Your task to perform on an android device: What's on the menu at Five Guys? Image 0: 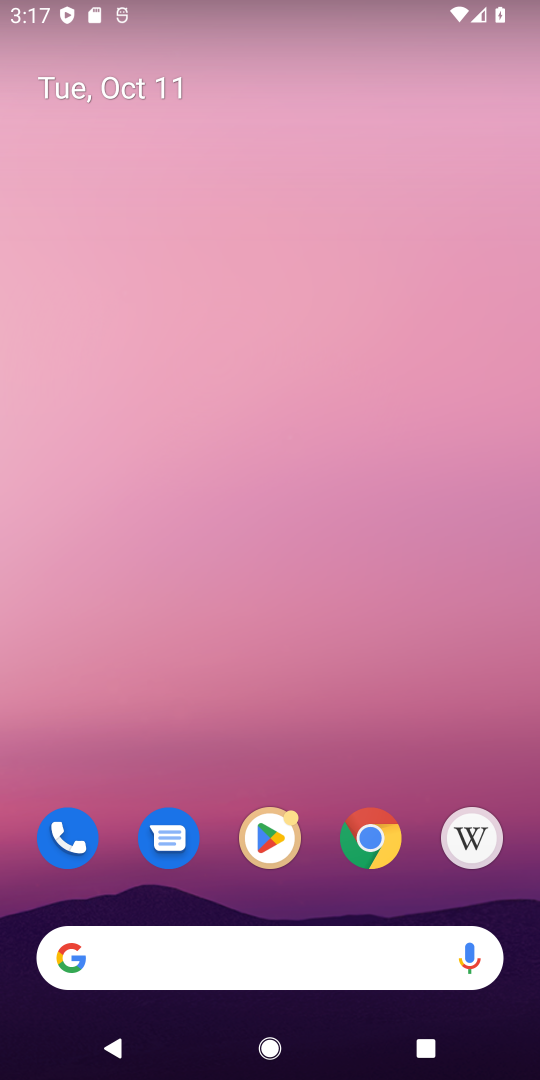
Step 0: click (205, 935)
Your task to perform on an android device: What's on the menu at Five Guys? Image 1: 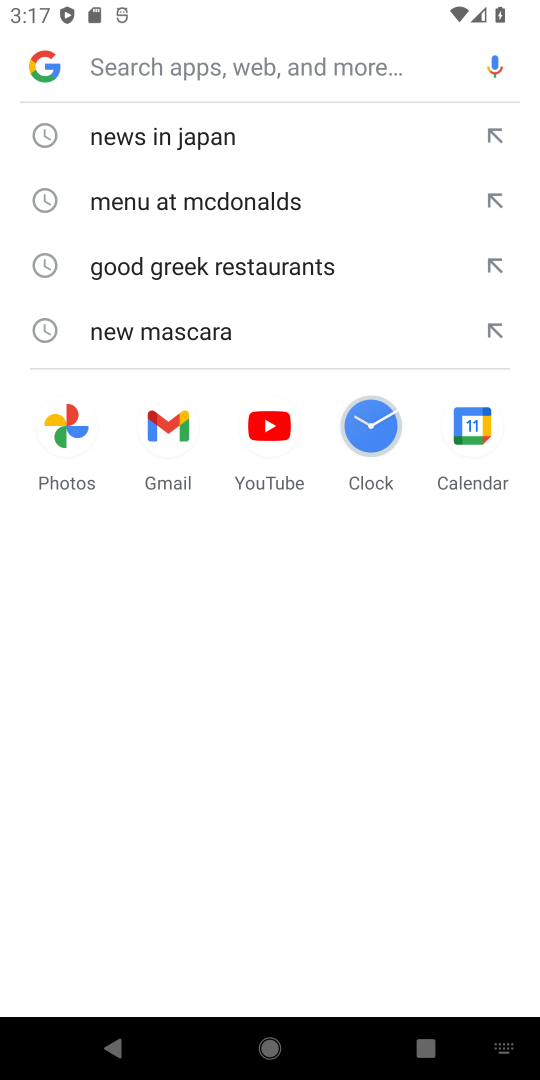
Step 1: type "menu at Five Guys"
Your task to perform on an android device: What's on the menu at Five Guys? Image 2: 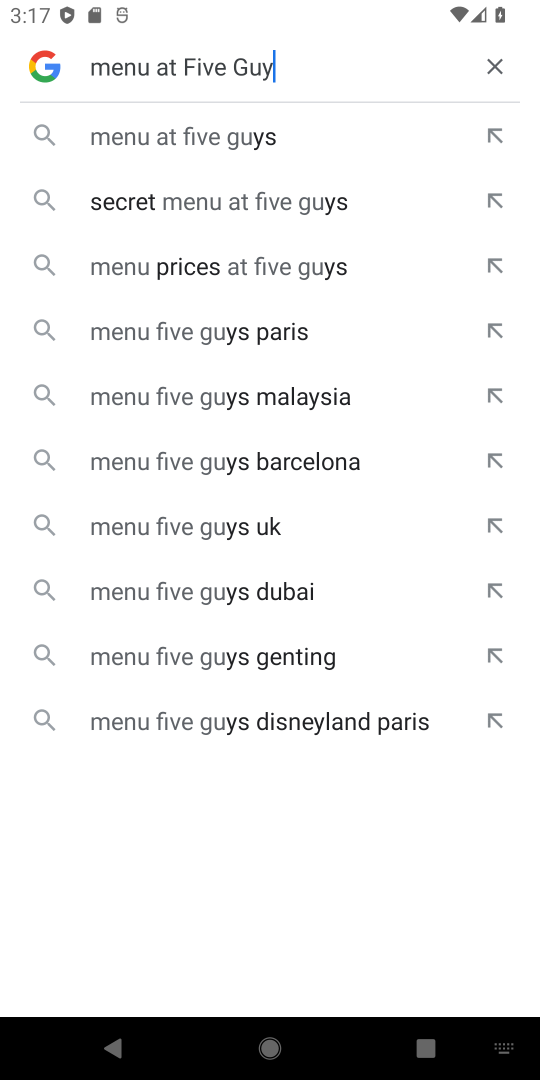
Step 2: type ""
Your task to perform on an android device: What's on the menu at Five Guys? Image 3: 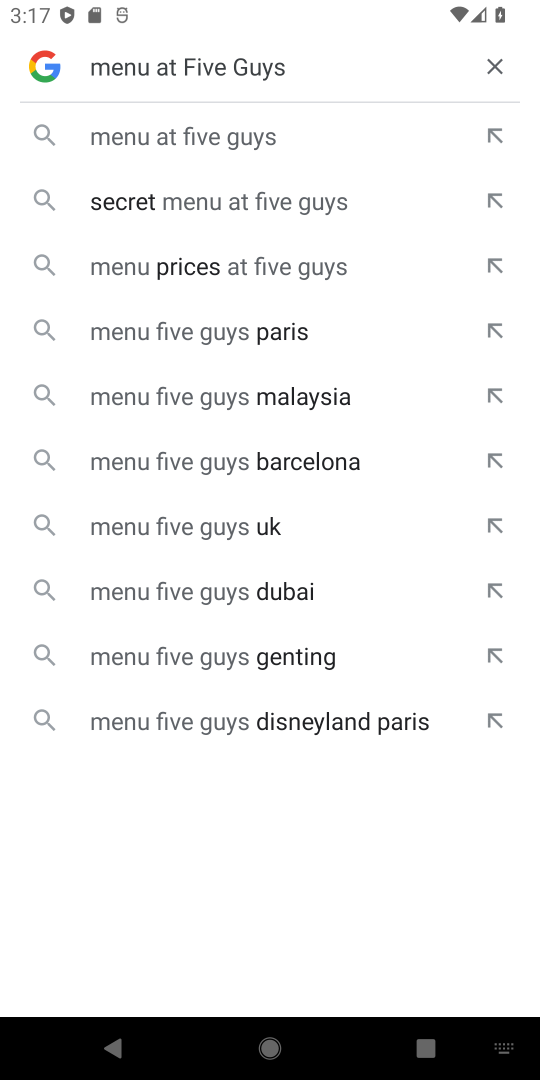
Step 3: click (220, 141)
Your task to perform on an android device: What's on the menu at Five Guys? Image 4: 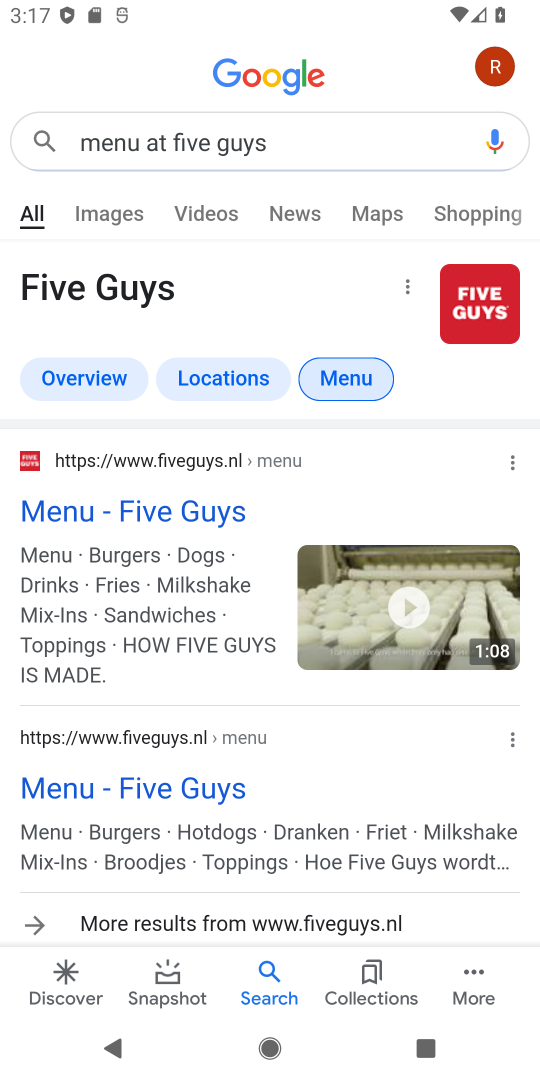
Step 4: click (138, 509)
Your task to perform on an android device: What's on the menu at Five Guys? Image 5: 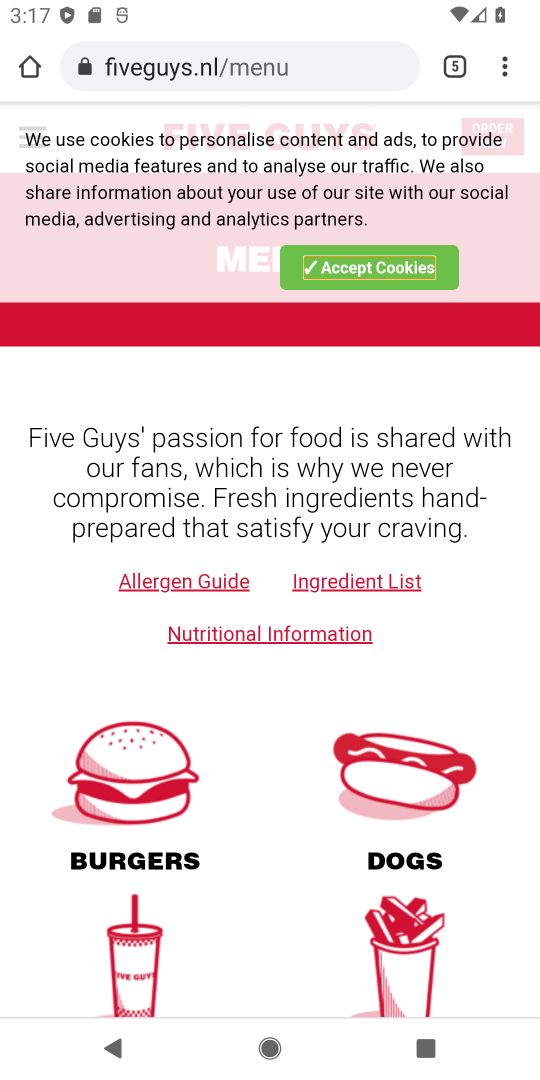
Step 5: task complete